Your task to perform on an android device: Play the last video I watched on Youtube Image 0: 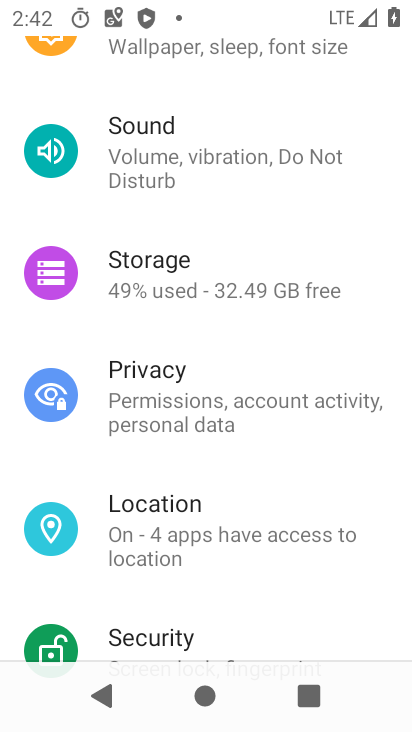
Step 0: press home button
Your task to perform on an android device: Play the last video I watched on Youtube Image 1: 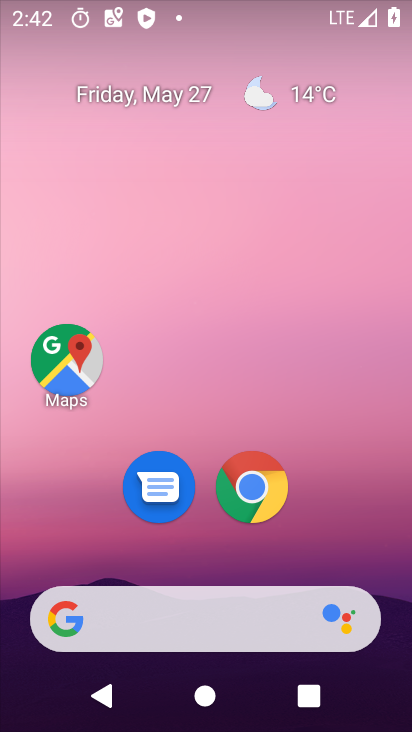
Step 1: drag from (365, 500) to (340, 157)
Your task to perform on an android device: Play the last video I watched on Youtube Image 2: 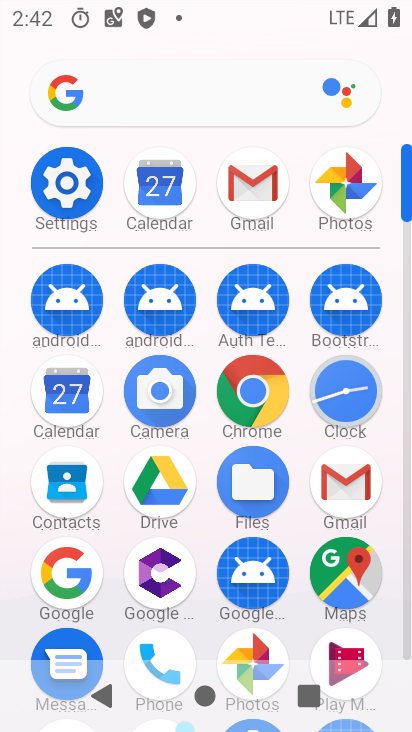
Step 2: drag from (197, 605) to (308, 203)
Your task to perform on an android device: Play the last video I watched on Youtube Image 3: 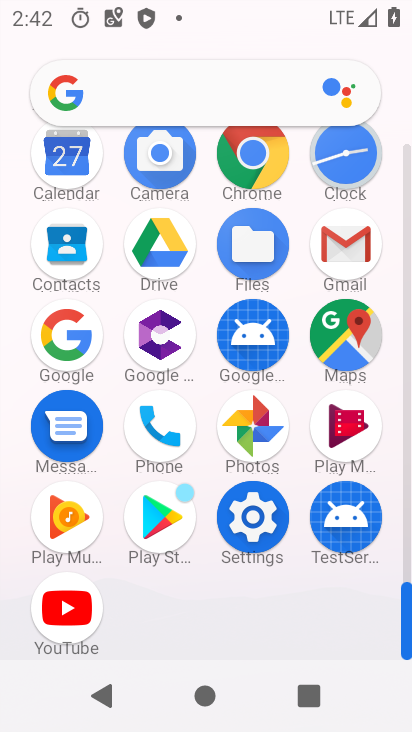
Step 3: click (72, 619)
Your task to perform on an android device: Play the last video I watched on Youtube Image 4: 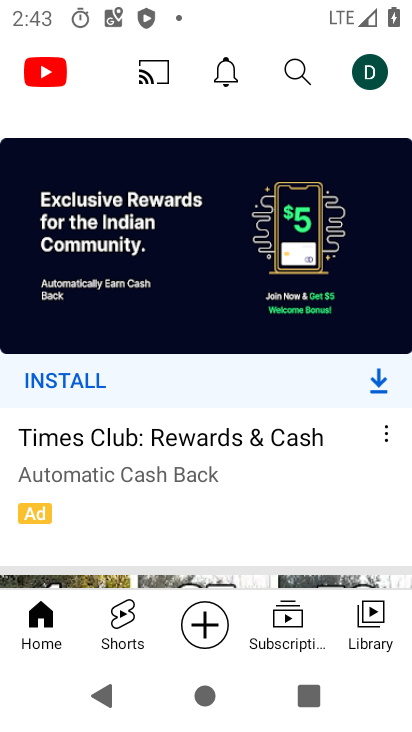
Step 4: click (379, 621)
Your task to perform on an android device: Play the last video I watched on Youtube Image 5: 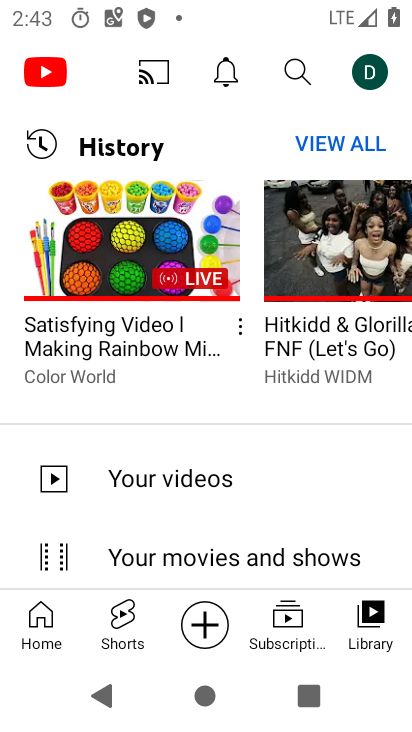
Step 5: drag from (222, 464) to (275, 425)
Your task to perform on an android device: Play the last video I watched on Youtube Image 6: 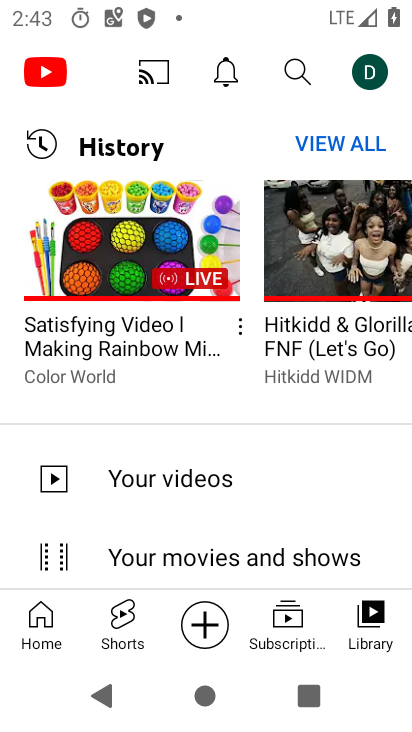
Step 6: click (170, 292)
Your task to perform on an android device: Play the last video I watched on Youtube Image 7: 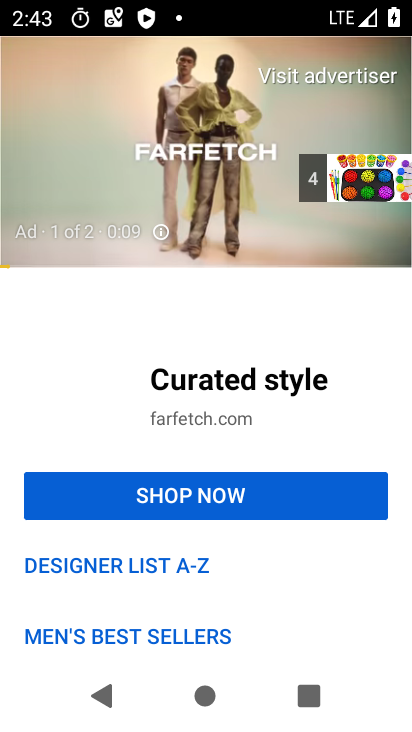
Step 7: task complete